Your task to perform on an android device: uninstall "Fetch Rewards" Image 0: 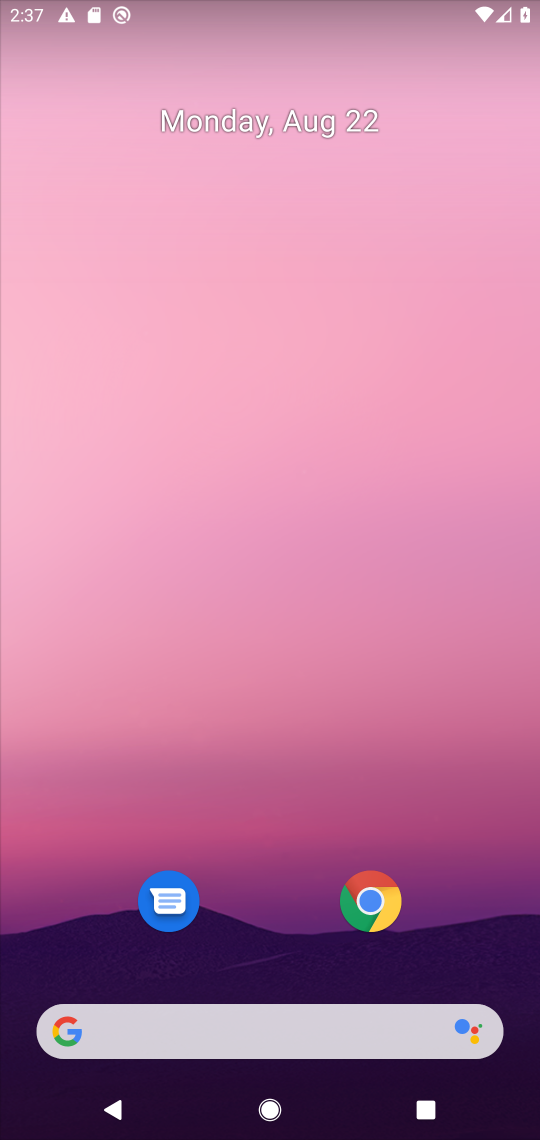
Step 0: drag from (504, 962) to (442, 16)
Your task to perform on an android device: uninstall "Fetch Rewards" Image 1: 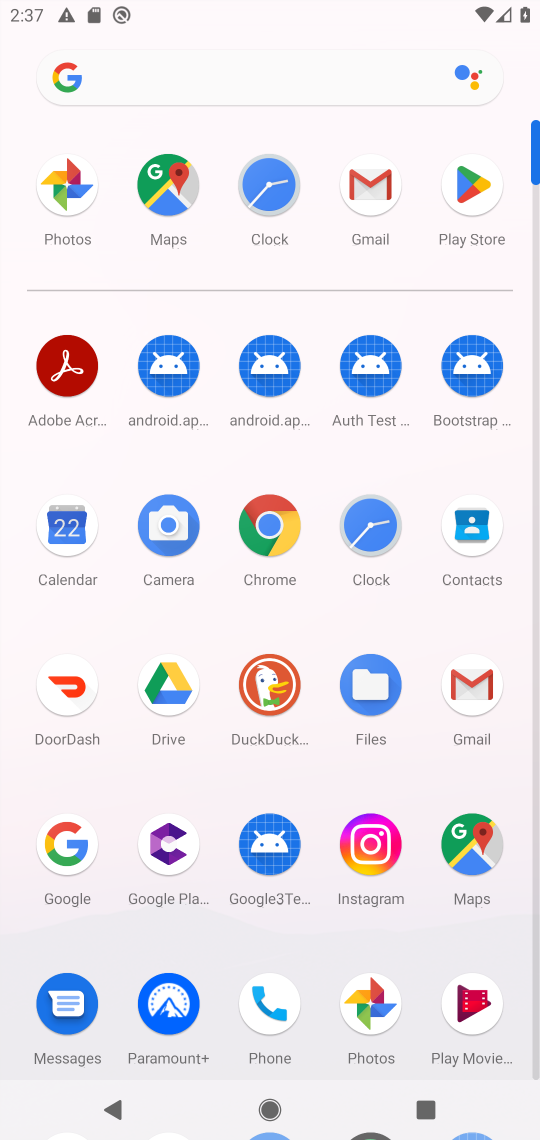
Step 1: drag from (315, 960) to (313, 519)
Your task to perform on an android device: uninstall "Fetch Rewards" Image 2: 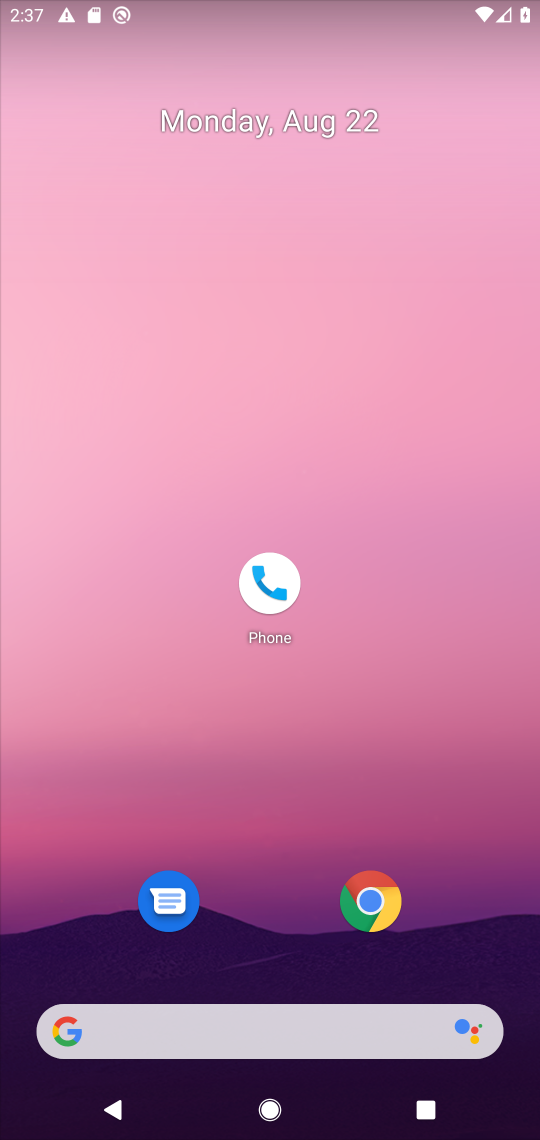
Step 2: drag from (261, 938) to (222, 256)
Your task to perform on an android device: uninstall "Fetch Rewards" Image 3: 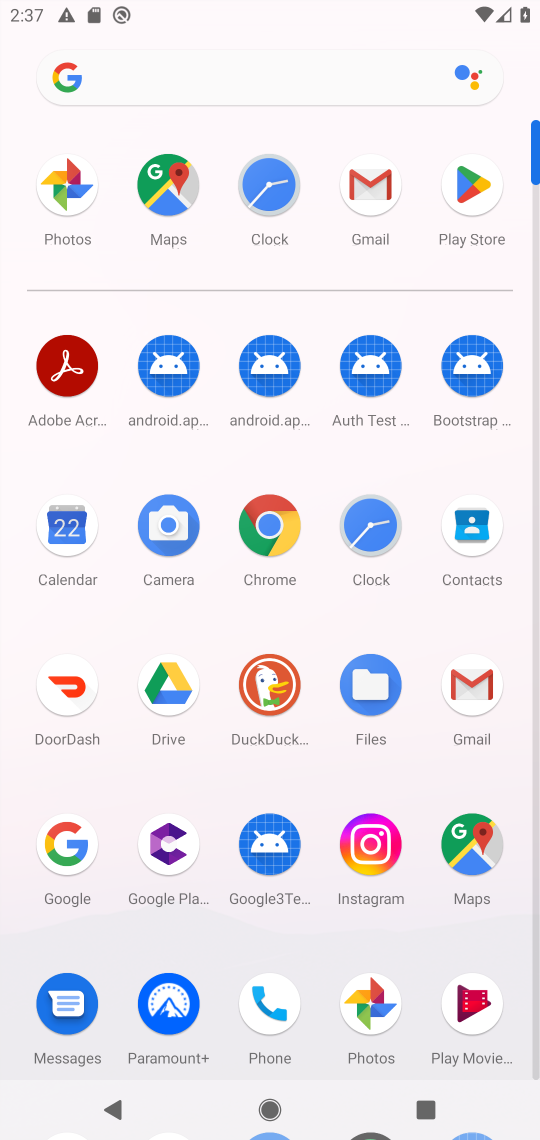
Step 3: drag from (201, 958) to (226, 630)
Your task to perform on an android device: uninstall "Fetch Rewards" Image 4: 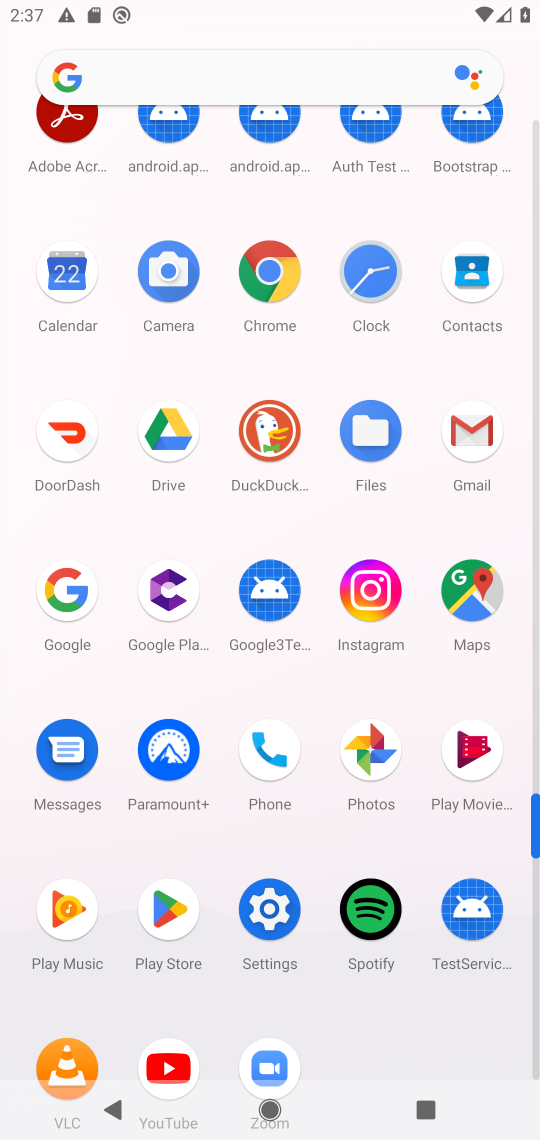
Step 4: click (165, 913)
Your task to perform on an android device: uninstall "Fetch Rewards" Image 5: 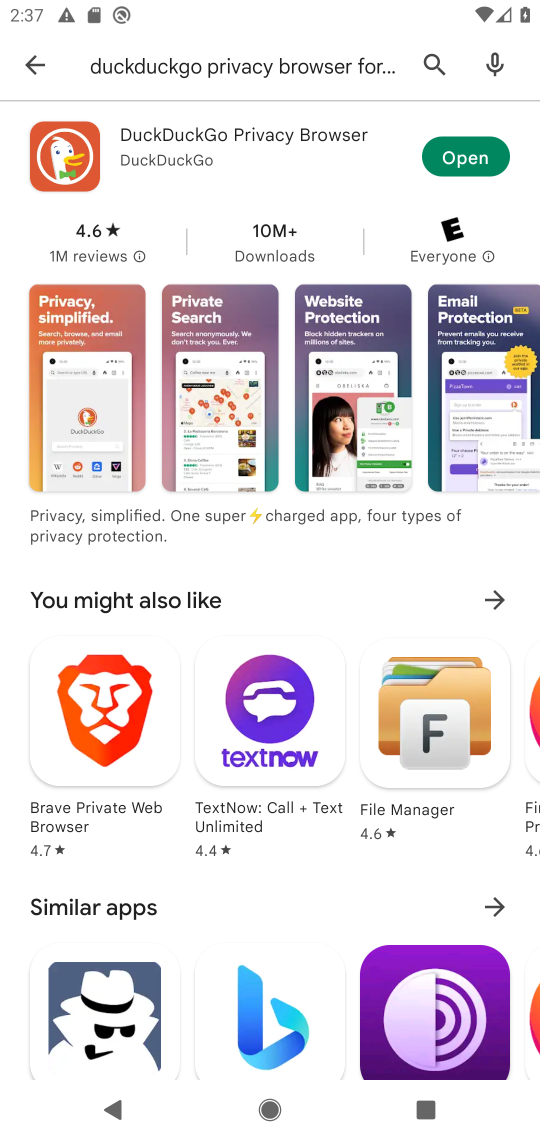
Step 5: click (432, 64)
Your task to perform on an android device: uninstall "Fetch Rewards" Image 6: 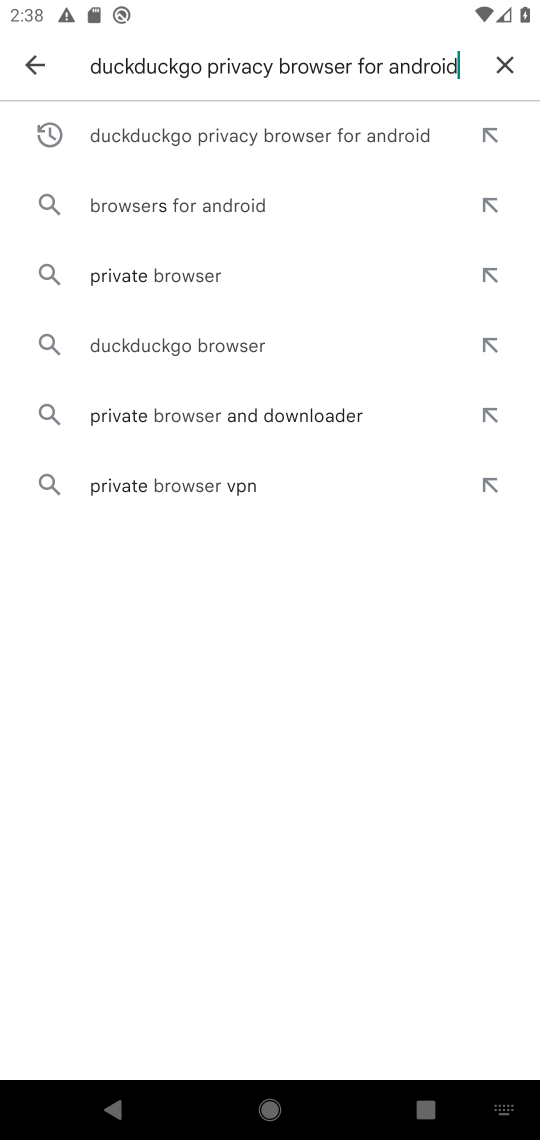
Step 6: click (495, 44)
Your task to perform on an android device: uninstall "Fetch Rewards" Image 7: 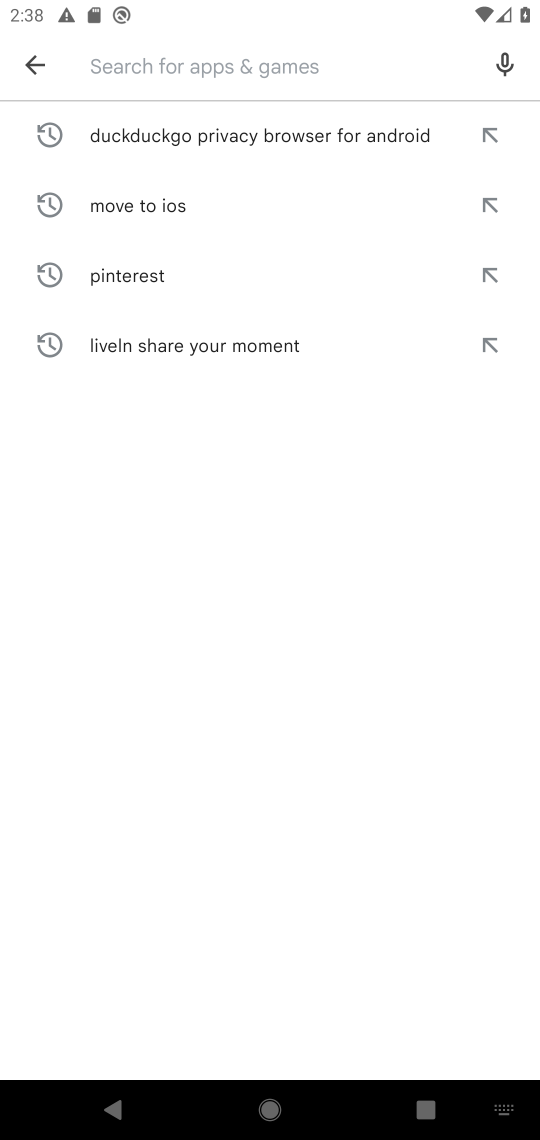
Step 7: type "Fetch Rewards"
Your task to perform on an android device: uninstall "Fetch Rewards" Image 8: 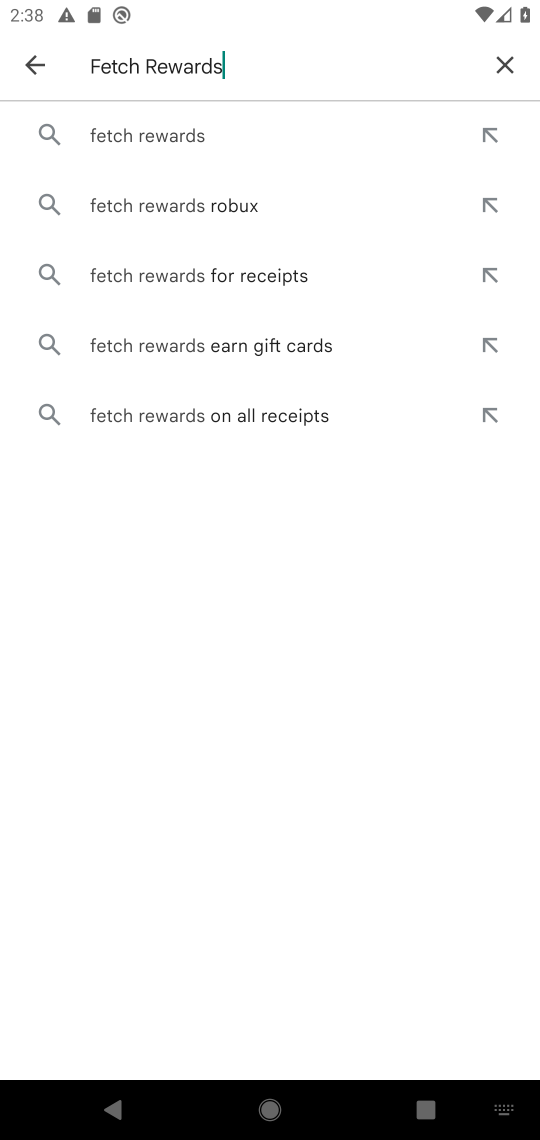
Step 8: click (107, 141)
Your task to perform on an android device: uninstall "Fetch Rewards" Image 9: 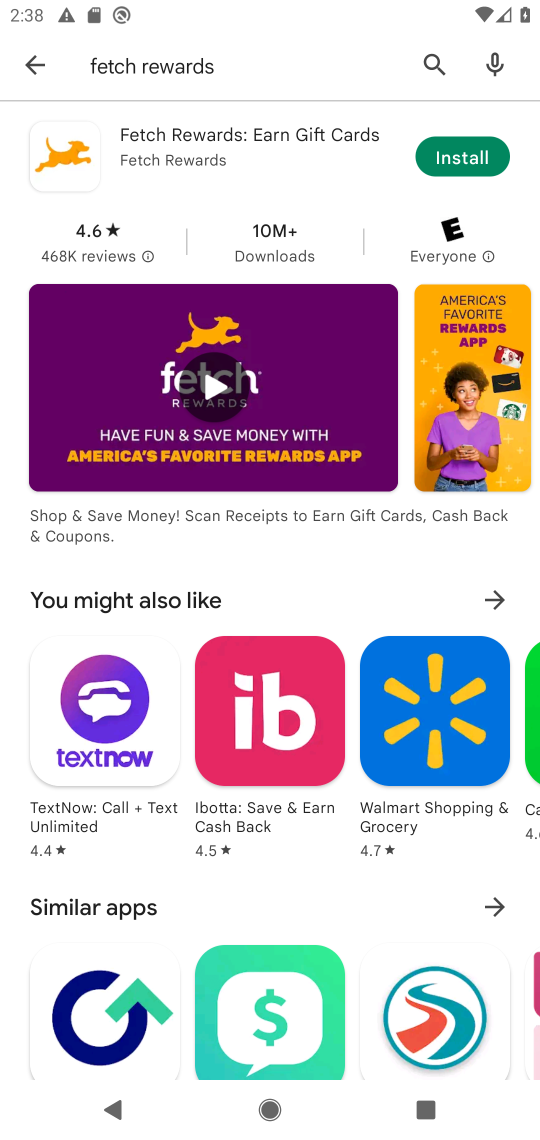
Step 9: click (119, 141)
Your task to perform on an android device: uninstall "Fetch Rewards" Image 10: 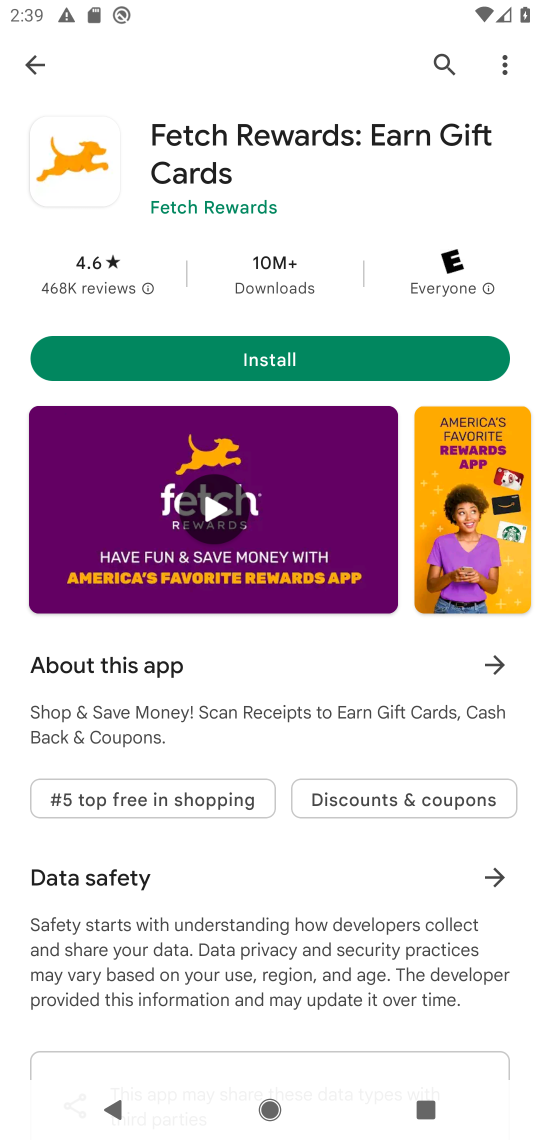
Step 10: click (254, 368)
Your task to perform on an android device: uninstall "Fetch Rewards" Image 11: 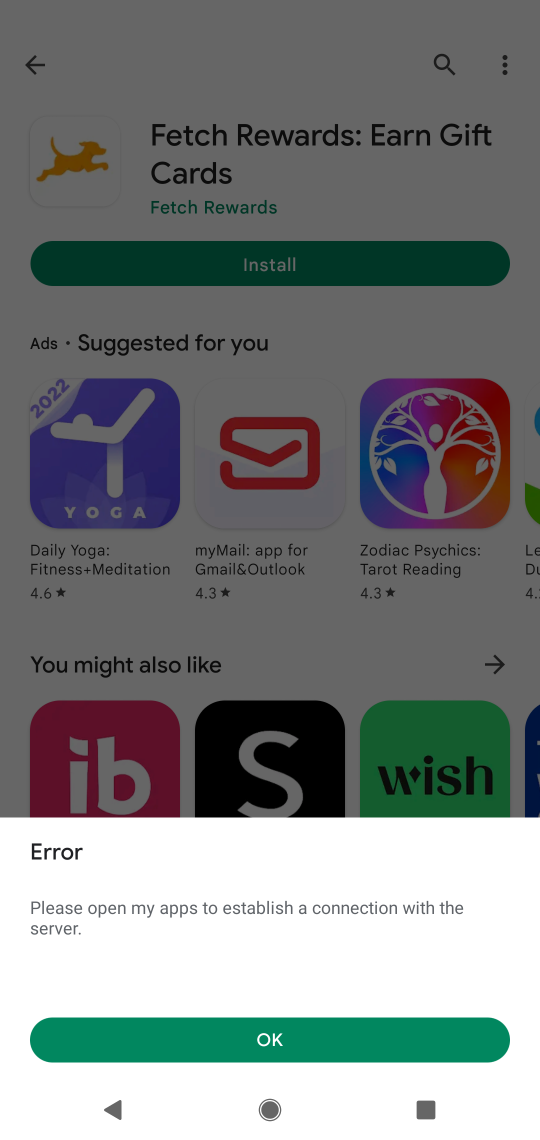
Step 11: click (241, 1030)
Your task to perform on an android device: uninstall "Fetch Rewards" Image 12: 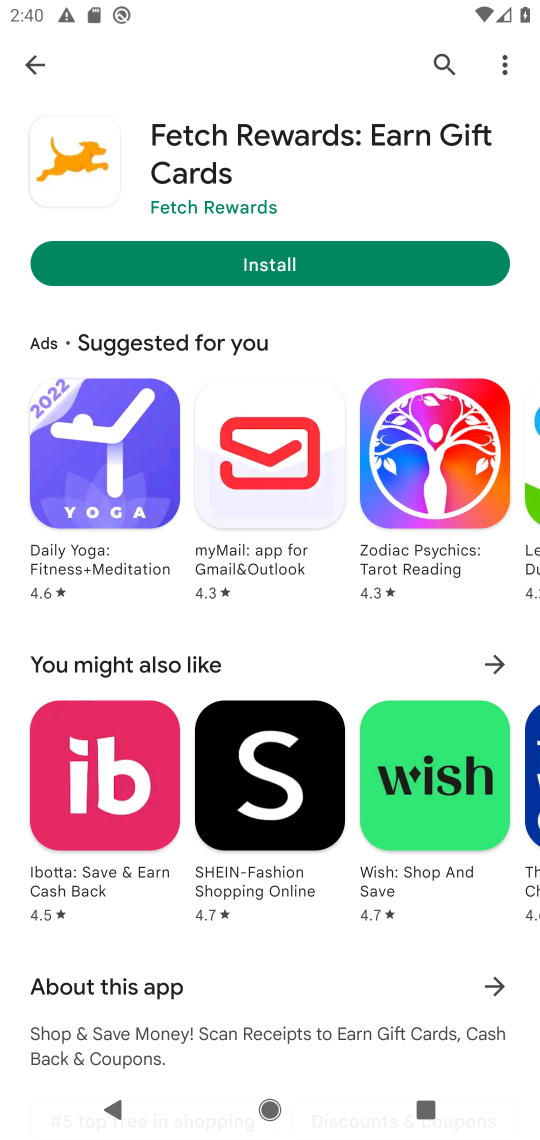
Step 12: click (260, 252)
Your task to perform on an android device: uninstall "Fetch Rewards" Image 13: 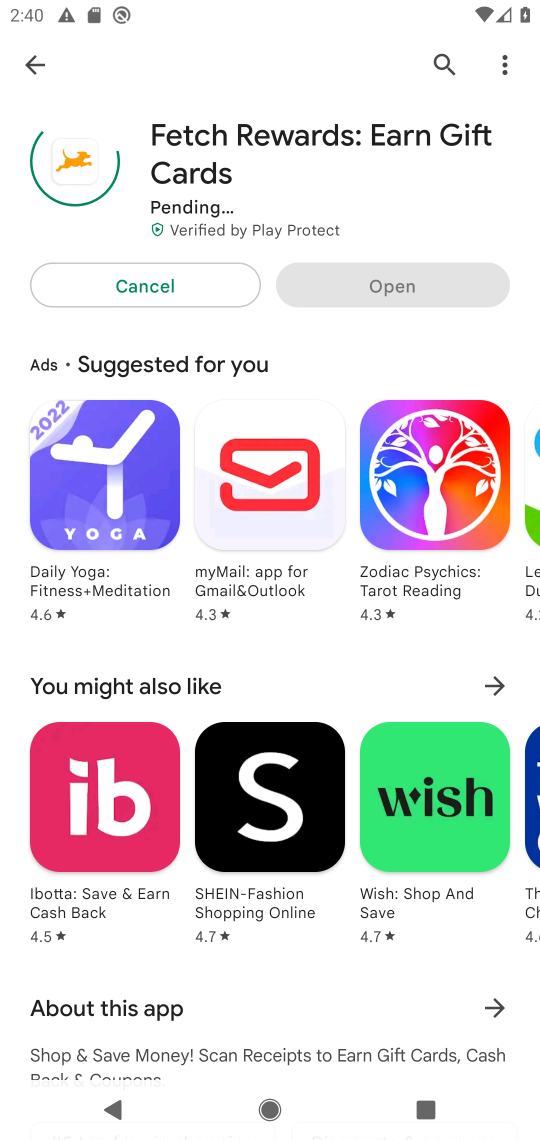
Step 13: click (260, 252)
Your task to perform on an android device: uninstall "Fetch Rewards" Image 14: 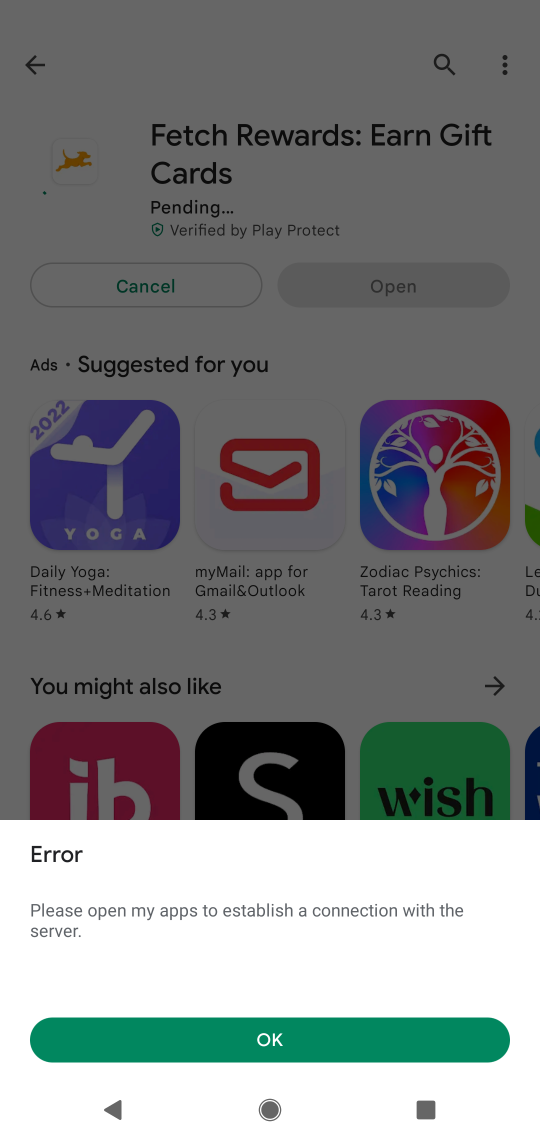
Step 14: click (170, 276)
Your task to perform on an android device: uninstall "Fetch Rewards" Image 15: 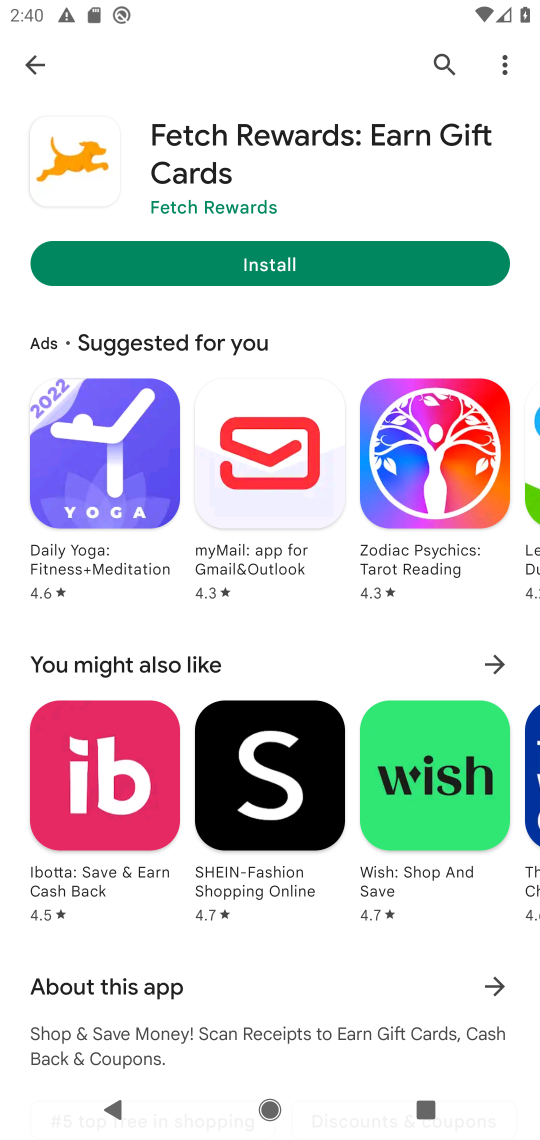
Step 15: task complete